Your task to perform on an android device: turn off location Image 0: 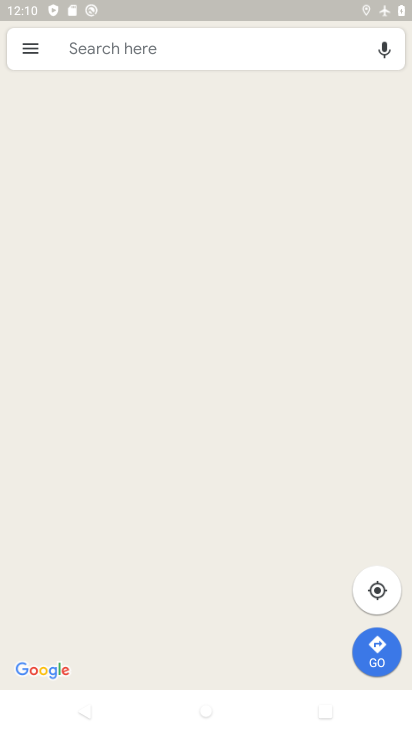
Step 0: press back button
Your task to perform on an android device: turn off location Image 1: 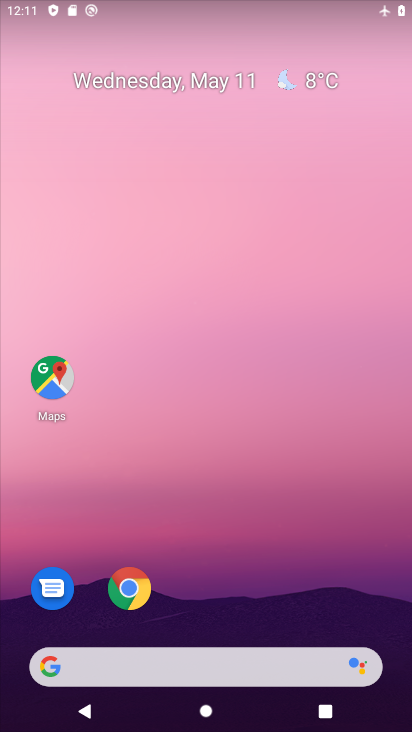
Step 1: drag from (183, 642) to (276, 151)
Your task to perform on an android device: turn off location Image 2: 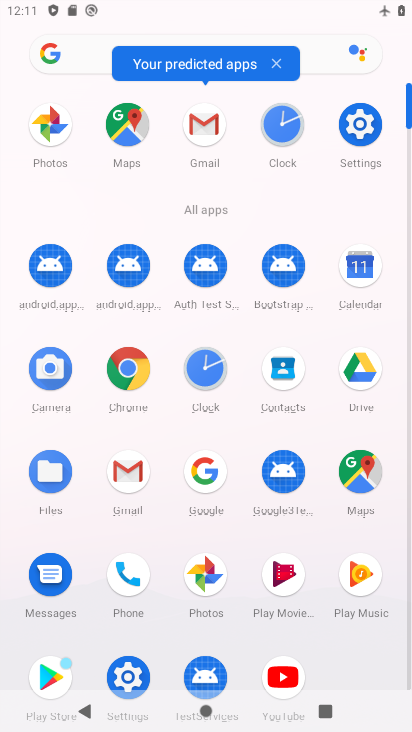
Step 2: click (142, 675)
Your task to perform on an android device: turn off location Image 3: 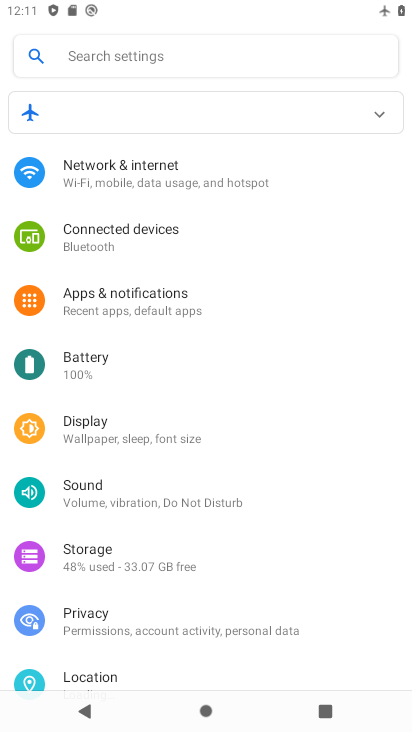
Step 3: drag from (166, 635) to (234, 452)
Your task to perform on an android device: turn off location Image 4: 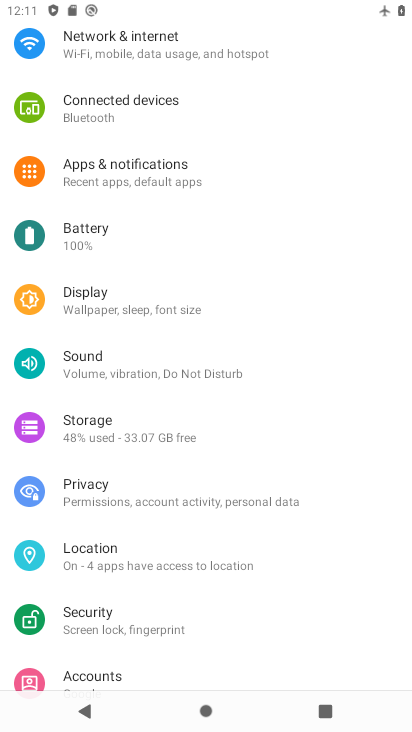
Step 4: click (156, 559)
Your task to perform on an android device: turn off location Image 5: 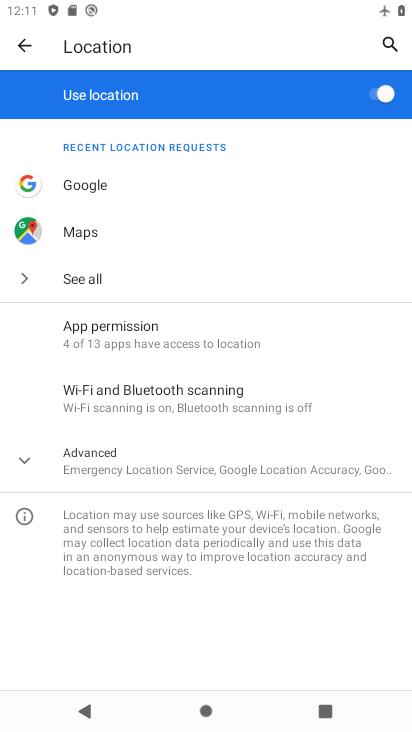
Step 5: click (372, 94)
Your task to perform on an android device: turn off location Image 6: 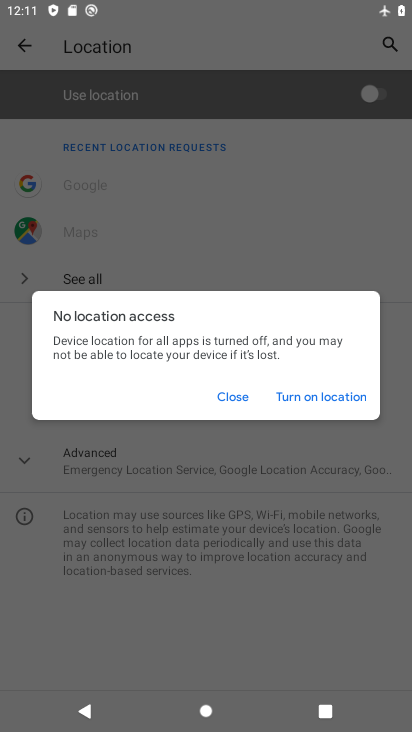
Step 6: click (238, 397)
Your task to perform on an android device: turn off location Image 7: 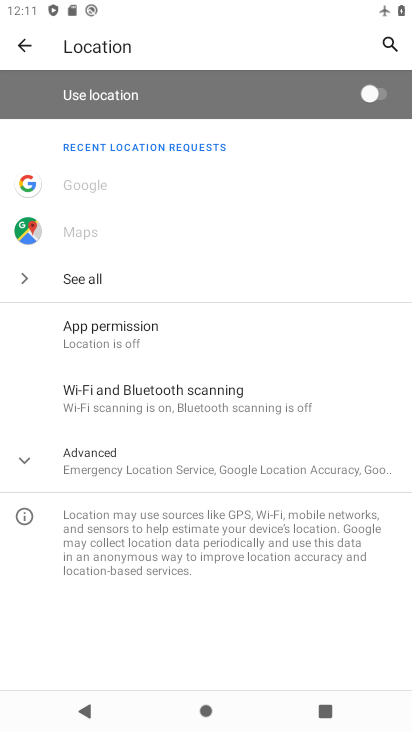
Step 7: task complete